Your task to perform on an android device: turn on sleep mode Image 0: 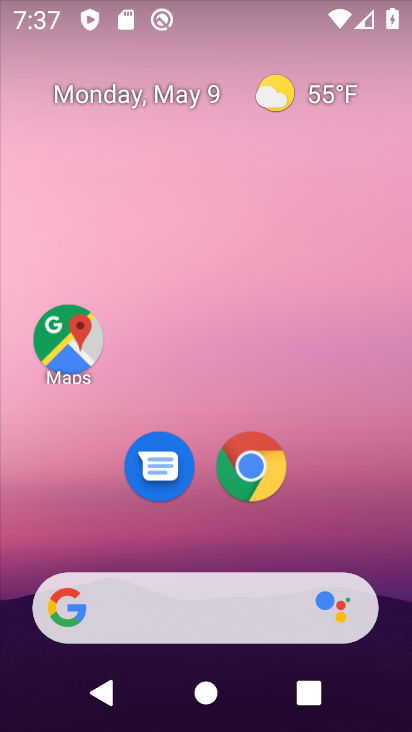
Step 0: drag from (372, 557) to (177, 150)
Your task to perform on an android device: turn on sleep mode Image 1: 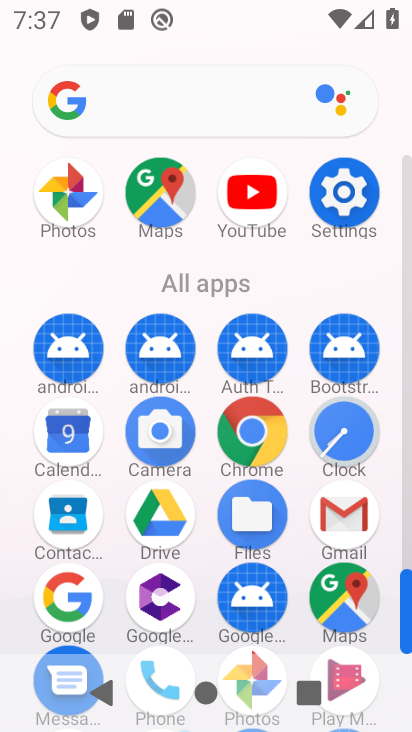
Step 1: click (340, 199)
Your task to perform on an android device: turn on sleep mode Image 2: 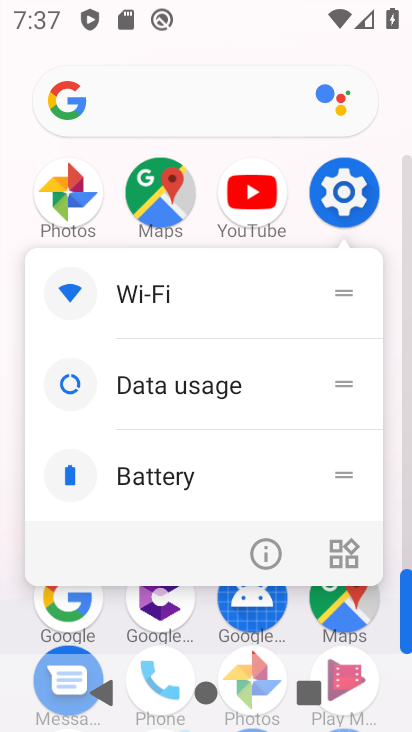
Step 2: click (343, 198)
Your task to perform on an android device: turn on sleep mode Image 3: 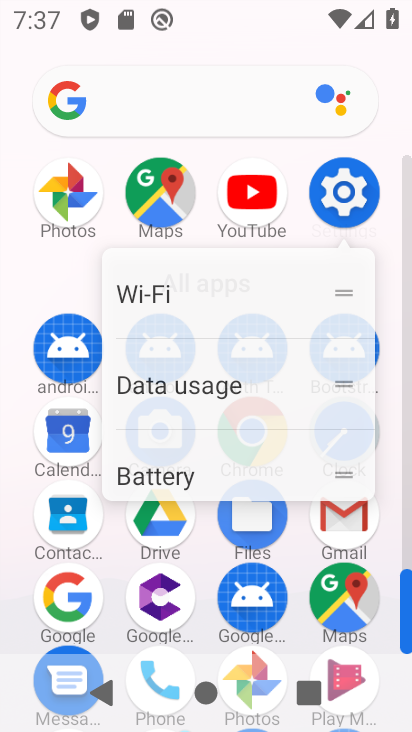
Step 3: click (343, 198)
Your task to perform on an android device: turn on sleep mode Image 4: 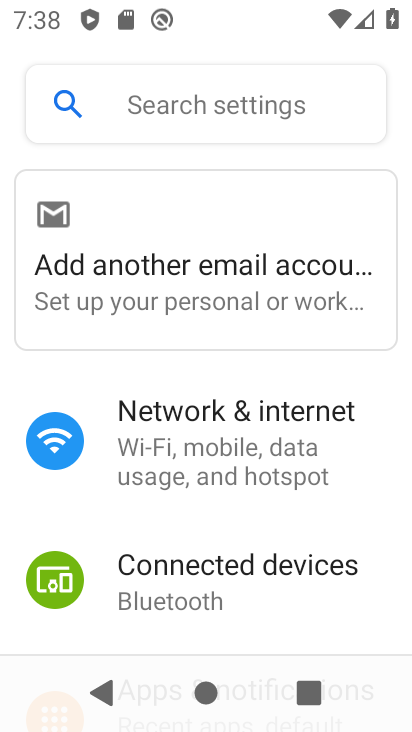
Step 4: drag from (224, 572) to (184, 136)
Your task to perform on an android device: turn on sleep mode Image 5: 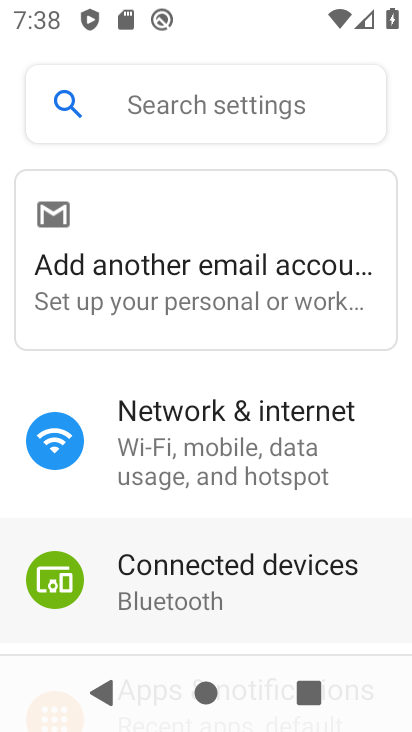
Step 5: click (178, 108)
Your task to perform on an android device: turn on sleep mode Image 6: 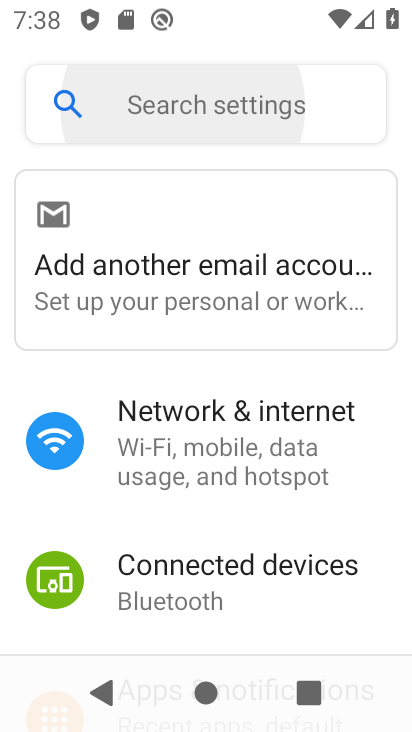
Step 6: drag from (207, 472) to (202, 142)
Your task to perform on an android device: turn on sleep mode Image 7: 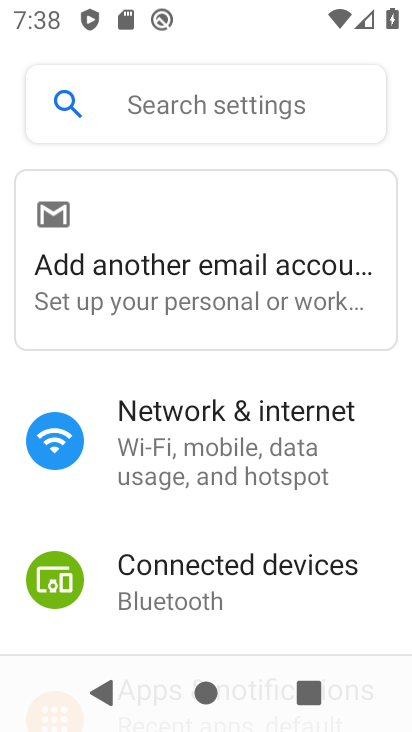
Step 7: drag from (249, 473) to (227, 136)
Your task to perform on an android device: turn on sleep mode Image 8: 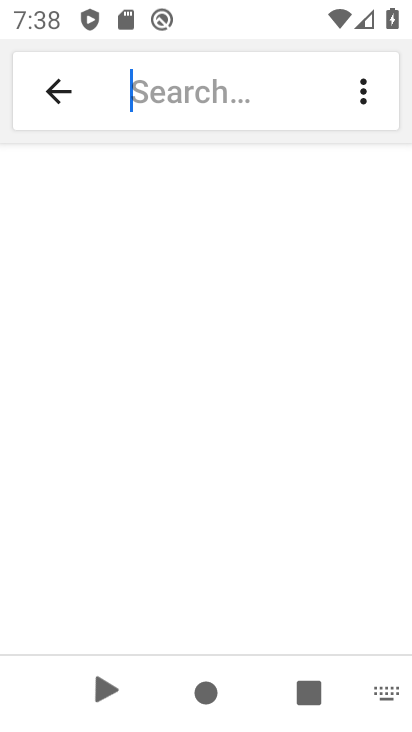
Step 8: drag from (227, 417) to (222, 154)
Your task to perform on an android device: turn on sleep mode Image 9: 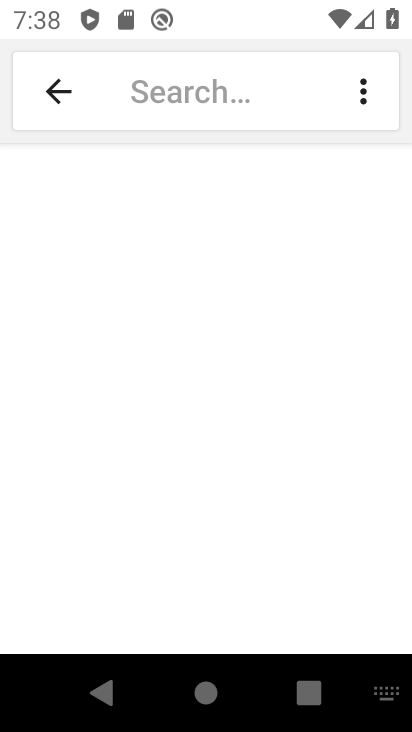
Step 9: click (45, 90)
Your task to perform on an android device: turn on sleep mode Image 10: 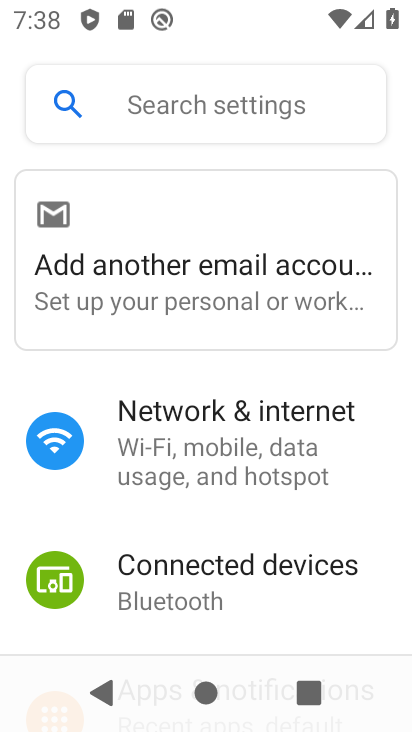
Step 10: task complete